Your task to perform on an android device: Search for seafood restaurants on Google Maps Image 0: 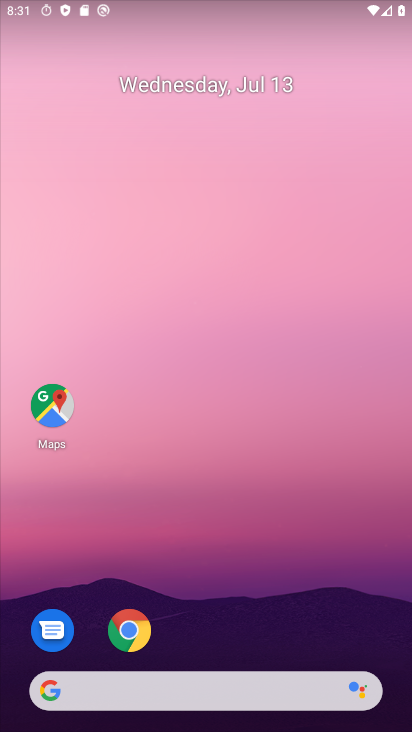
Step 0: drag from (206, 609) to (258, 40)
Your task to perform on an android device: Search for seafood restaurants on Google Maps Image 1: 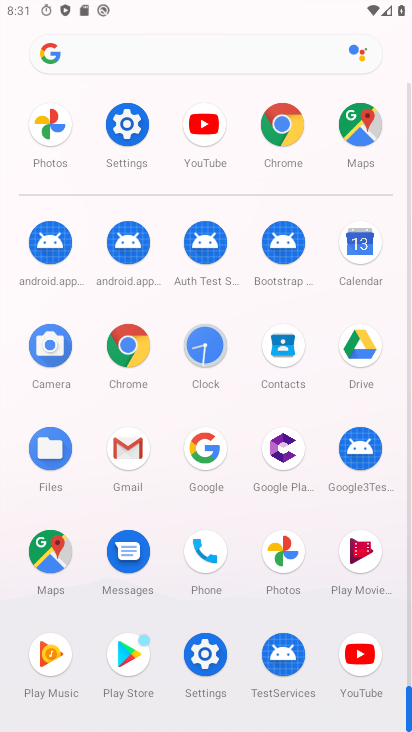
Step 1: click (57, 554)
Your task to perform on an android device: Search for seafood restaurants on Google Maps Image 2: 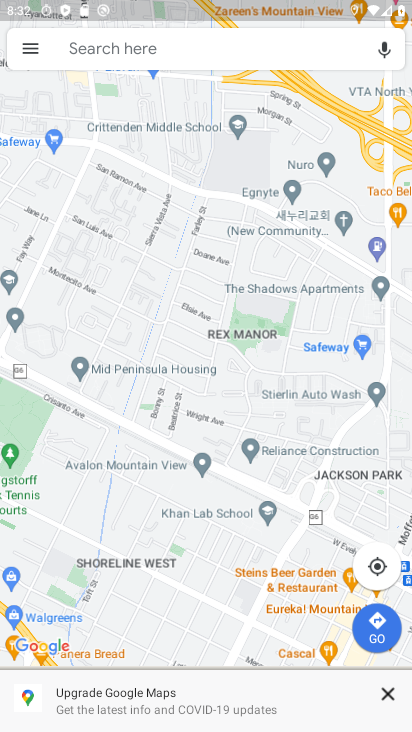
Step 2: drag from (209, 529) to (273, 600)
Your task to perform on an android device: Search for seafood restaurants on Google Maps Image 3: 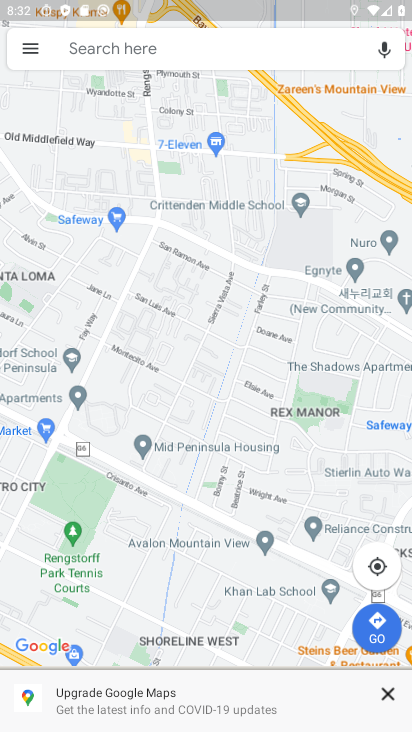
Step 3: click (149, 57)
Your task to perform on an android device: Search for seafood restaurants on Google Maps Image 4: 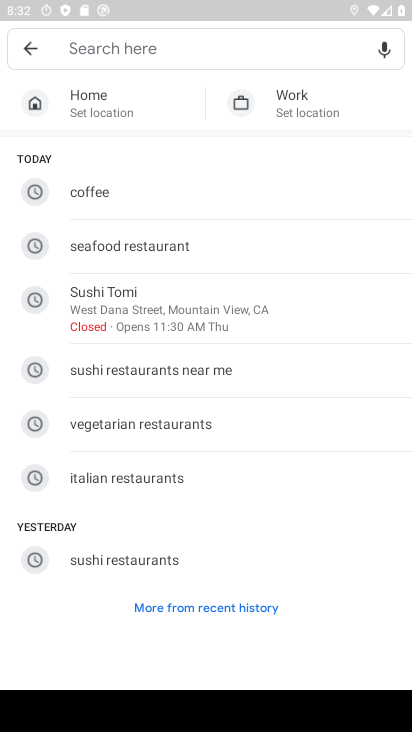
Step 4: type "seafood restaurants"
Your task to perform on an android device: Search for seafood restaurants on Google Maps Image 5: 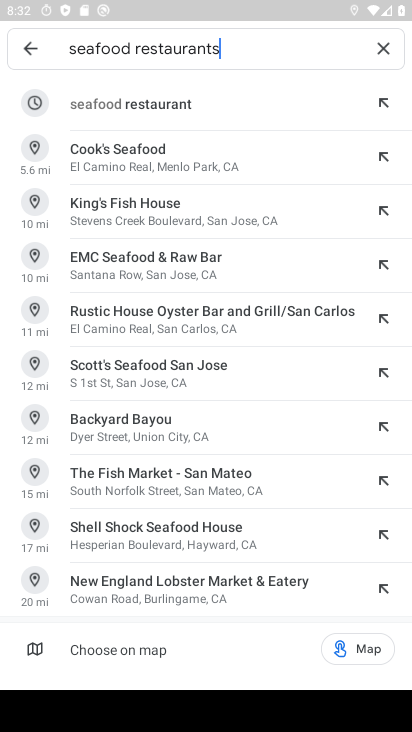
Step 5: drag from (231, 574) to (296, 256)
Your task to perform on an android device: Search for seafood restaurants on Google Maps Image 6: 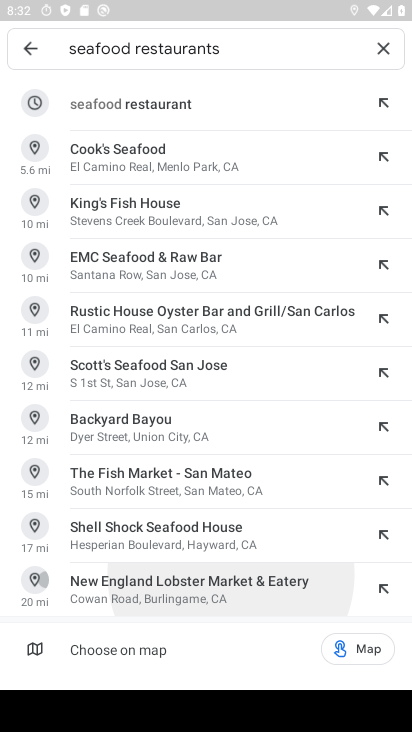
Step 6: drag from (282, 225) to (255, 607)
Your task to perform on an android device: Search for seafood restaurants on Google Maps Image 7: 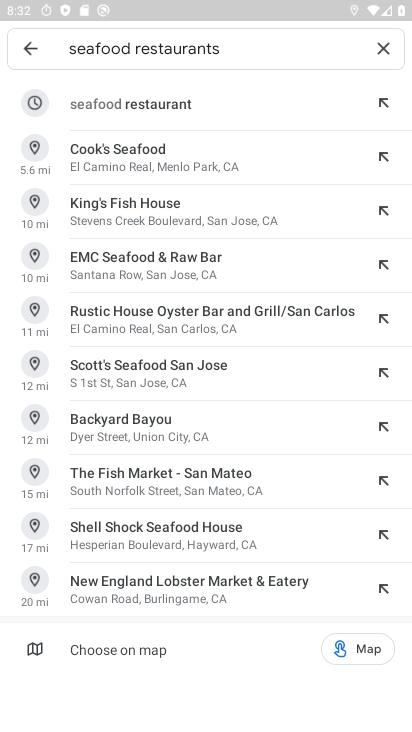
Step 7: click (183, 108)
Your task to perform on an android device: Search for seafood restaurants on Google Maps Image 8: 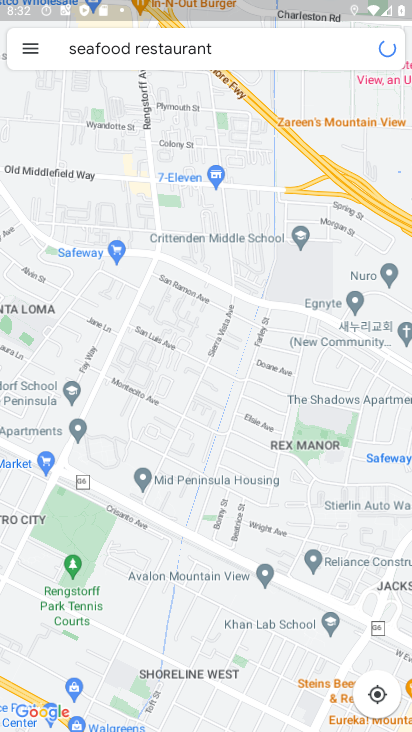
Step 8: task complete